Your task to perform on an android device: Open Yahoo.com Image 0: 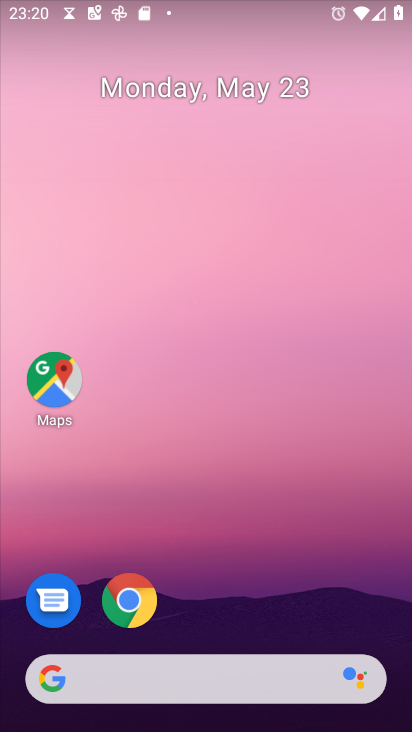
Step 0: click (132, 598)
Your task to perform on an android device: Open Yahoo.com Image 1: 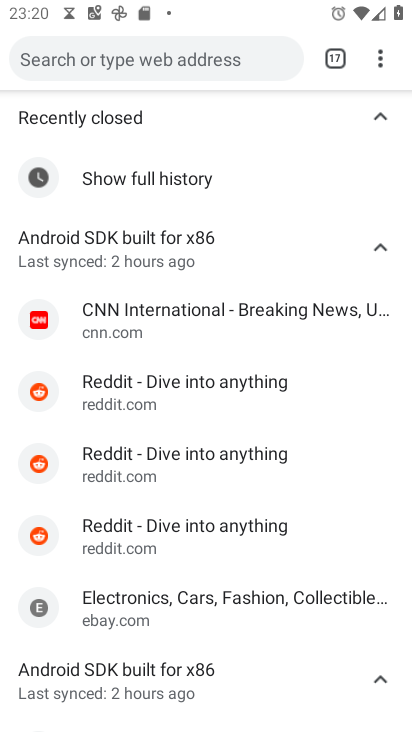
Step 1: click (379, 67)
Your task to perform on an android device: Open Yahoo.com Image 2: 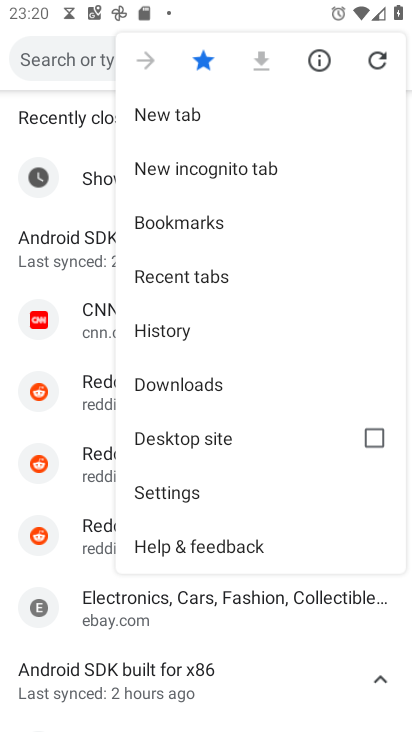
Step 2: click (170, 109)
Your task to perform on an android device: Open Yahoo.com Image 3: 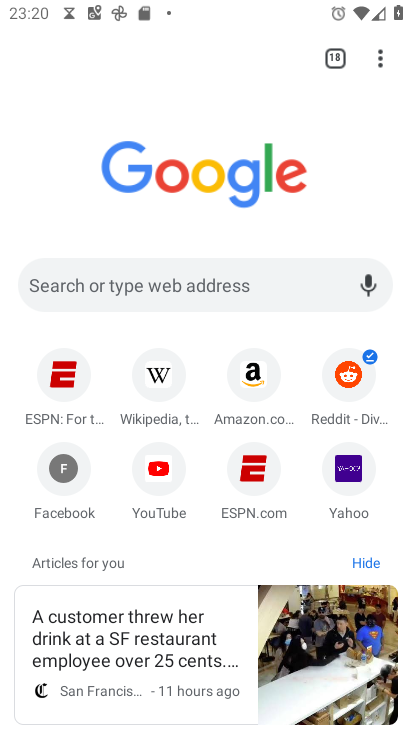
Step 3: click (345, 473)
Your task to perform on an android device: Open Yahoo.com Image 4: 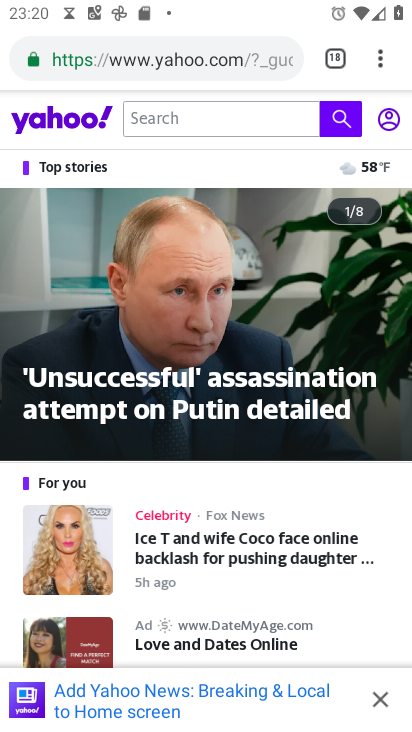
Step 4: task complete